Your task to perform on an android device: What's the weather going to be this weekend? Image 0: 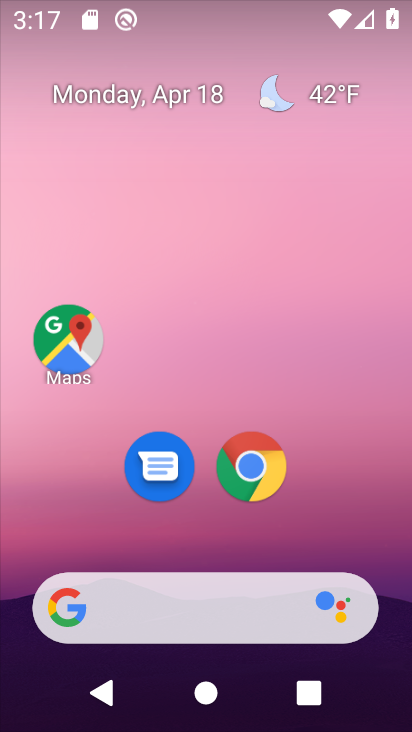
Step 0: click (223, 597)
Your task to perform on an android device: What's the weather going to be this weekend? Image 1: 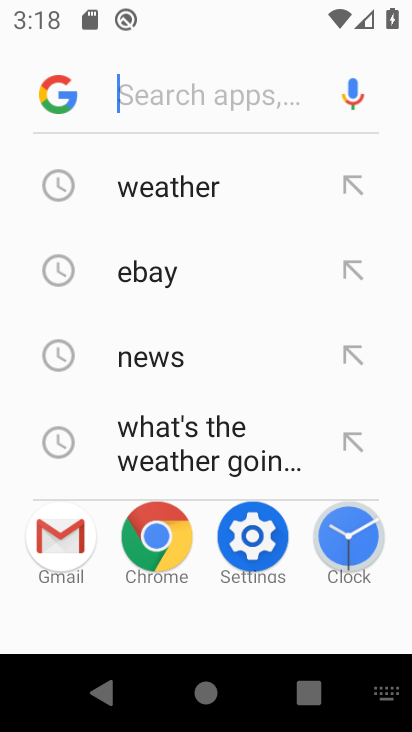
Step 1: type "what's the weather going to be this weekend"
Your task to perform on an android device: What's the weather going to be this weekend? Image 2: 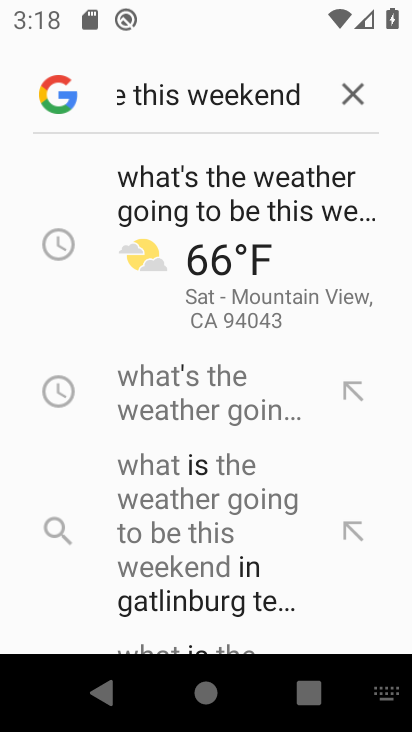
Step 2: click (214, 245)
Your task to perform on an android device: What's the weather going to be this weekend? Image 3: 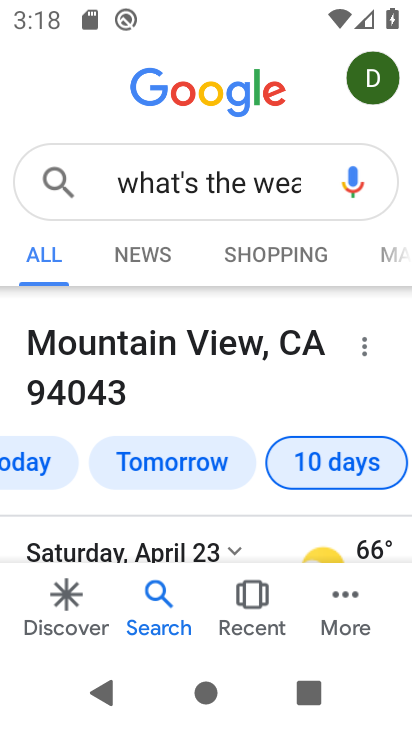
Step 3: task complete